Your task to perform on an android device: see tabs open on other devices in the chrome app Image 0: 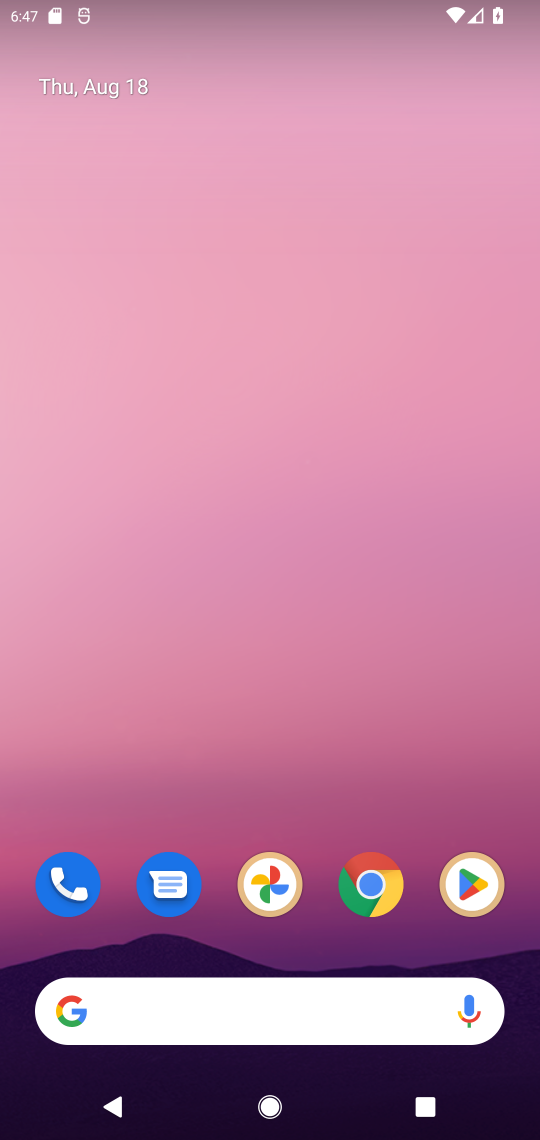
Step 0: click (363, 897)
Your task to perform on an android device: see tabs open on other devices in the chrome app Image 1: 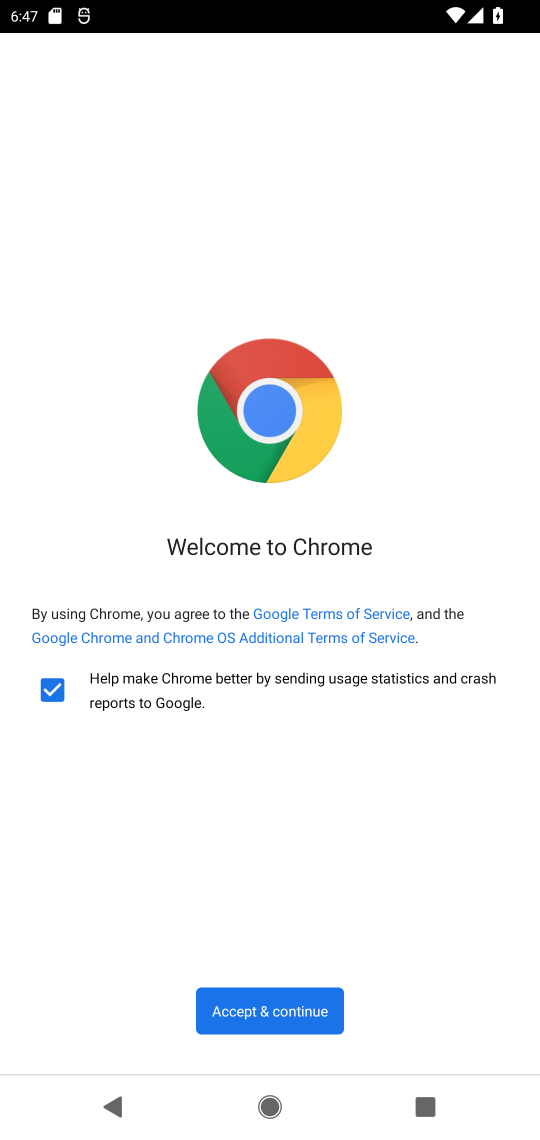
Step 1: click (245, 1023)
Your task to perform on an android device: see tabs open on other devices in the chrome app Image 2: 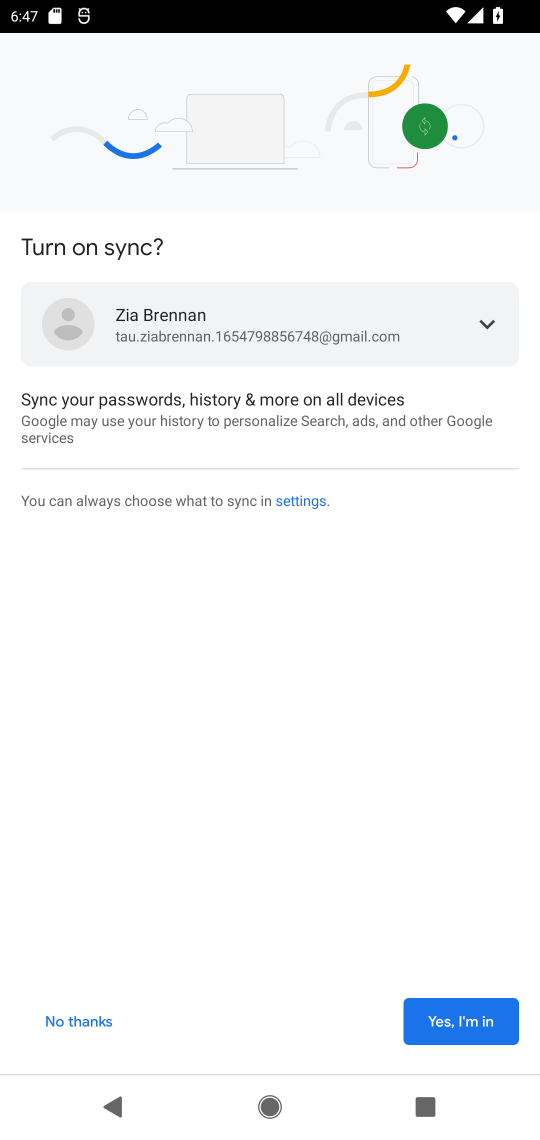
Step 2: click (483, 1019)
Your task to perform on an android device: see tabs open on other devices in the chrome app Image 3: 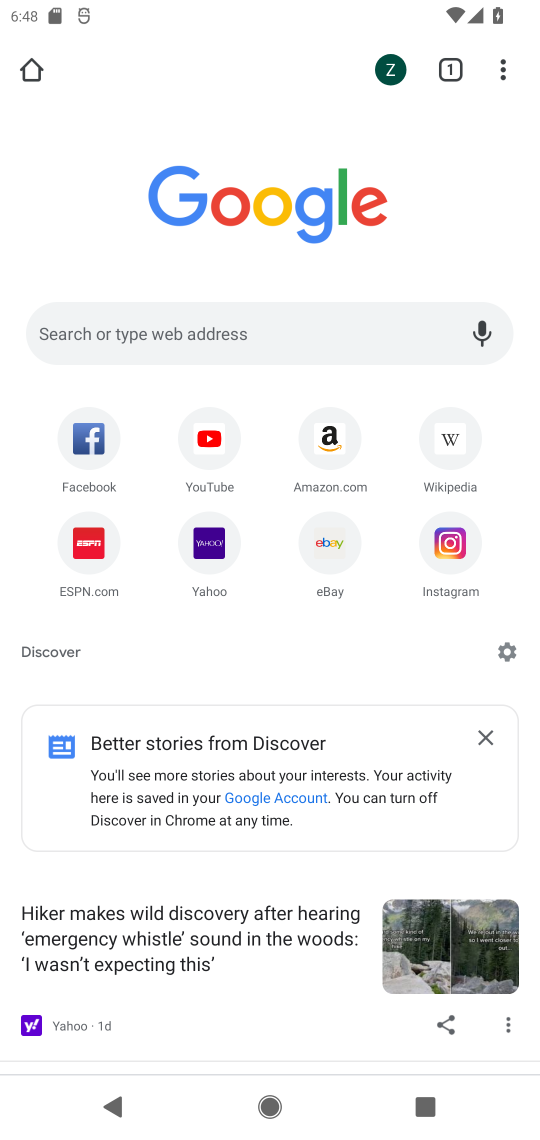
Step 3: click (506, 67)
Your task to perform on an android device: see tabs open on other devices in the chrome app Image 4: 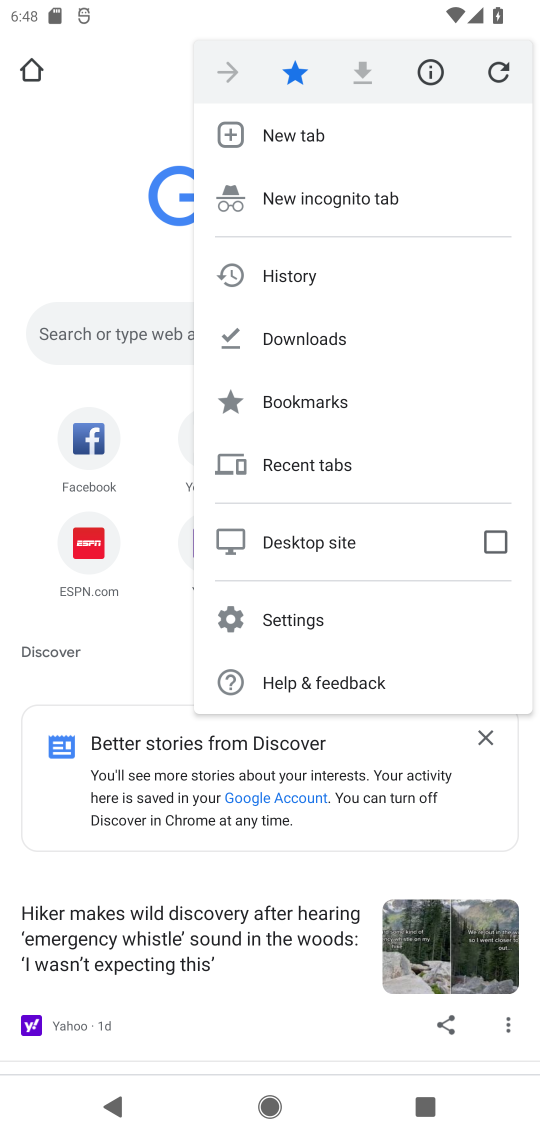
Step 4: click (394, 455)
Your task to perform on an android device: see tabs open on other devices in the chrome app Image 5: 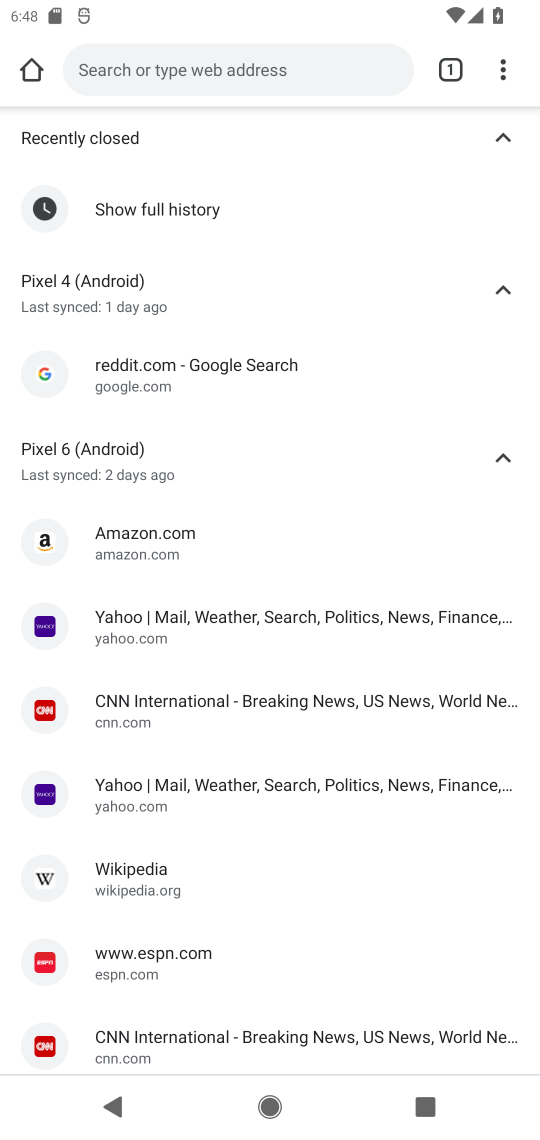
Step 5: task complete